Your task to perform on an android device: What's on my calendar tomorrow? Image 0: 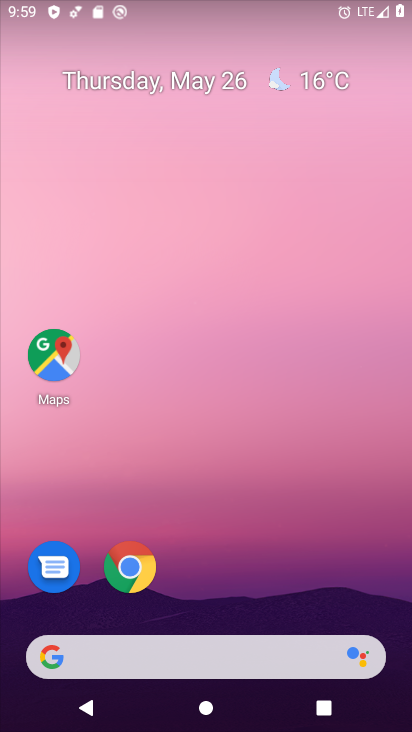
Step 0: drag from (395, 663) to (320, 287)
Your task to perform on an android device: What's on my calendar tomorrow? Image 1: 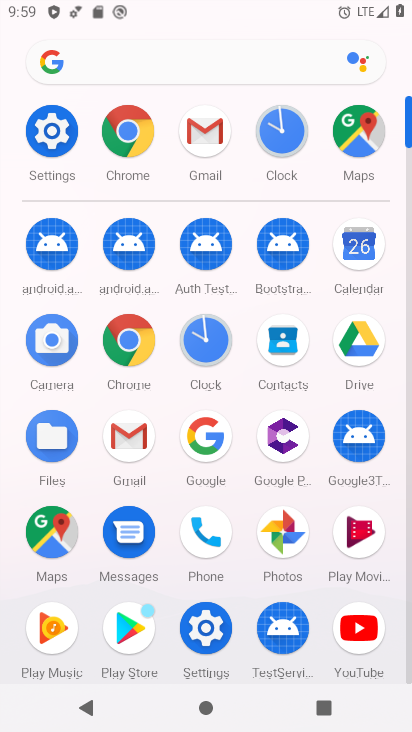
Step 1: click (349, 257)
Your task to perform on an android device: What's on my calendar tomorrow? Image 2: 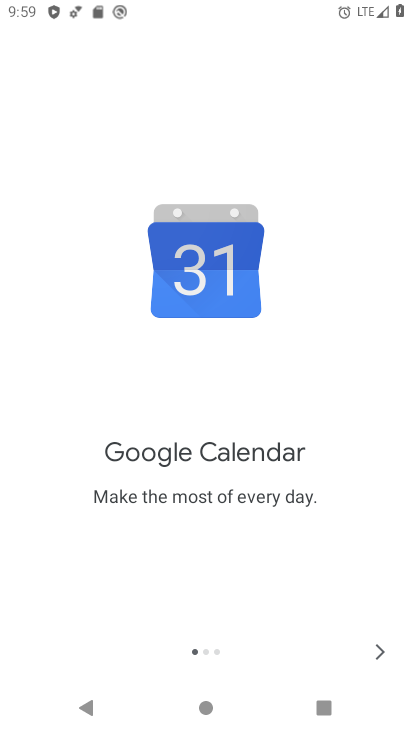
Step 2: click (380, 651)
Your task to perform on an android device: What's on my calendar tomorrow? Image 3: 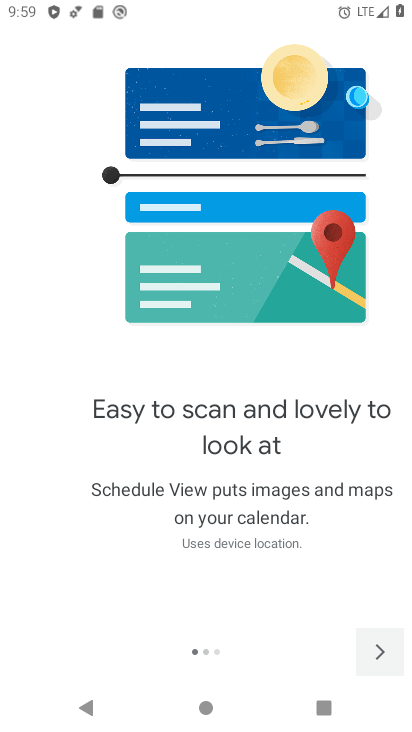
Step 3: click (385, 657)
Your task to perform on an android device: What's on my calendar tomorrow? Image 4: 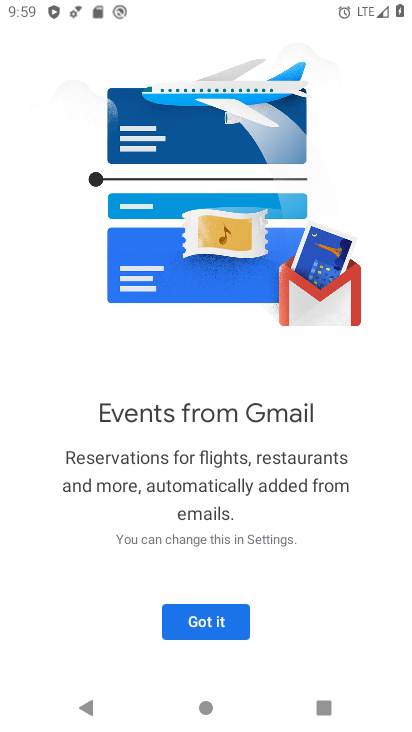
Step 4: click (198, 616)
Your task to perform on an android device: What's on my calendar tomorrow? Image 5: 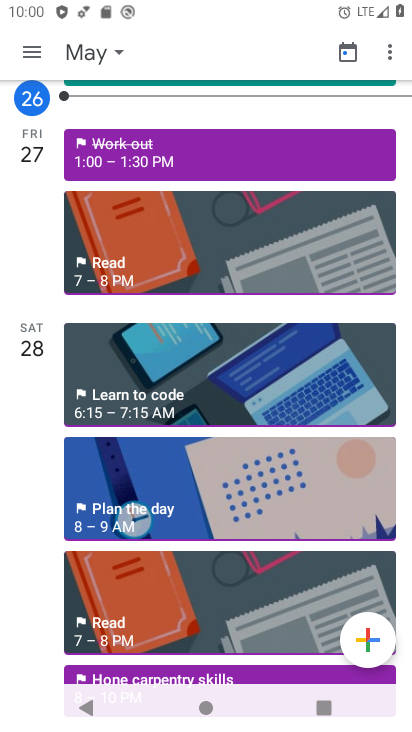
Step 5: click (121, 48)
Your task to perform on an android device: What's on my calendar tomorrow? Image 6: 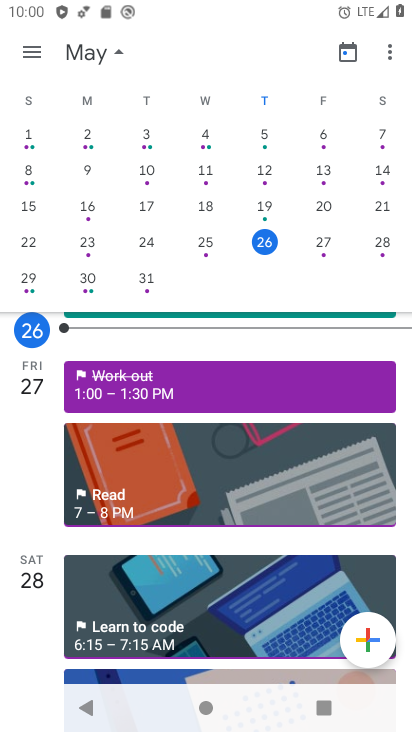
Step 6: click (321, 239)
Your task to perform on an android device: What's on my calendar tomorrow? Image 7: 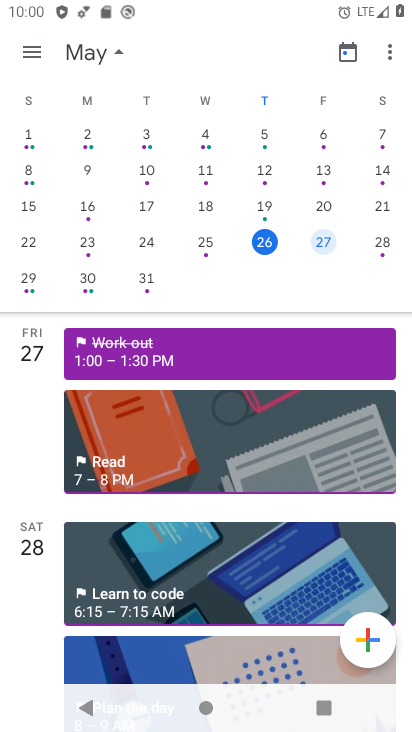
Step 7: task complete